Your task to perform on an android device: turn off picture-in-picture Image 0: 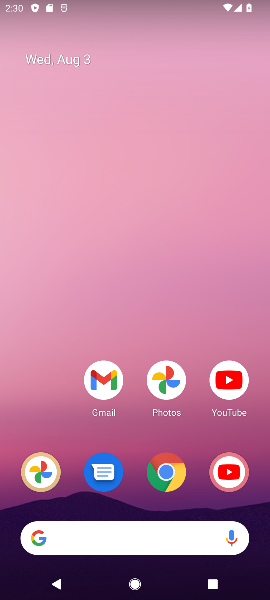
Step 0: drag from (194, 480) to (118, 153)
Your task to perform on an android device: turn off picture-in-picture Image 1: 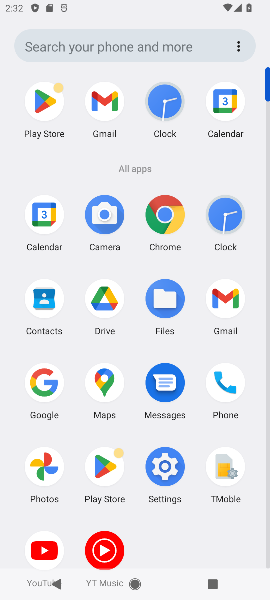
Step 1: click (159, 222)
Your task to perform on an android device: turn off picture-in-picture Image 2: 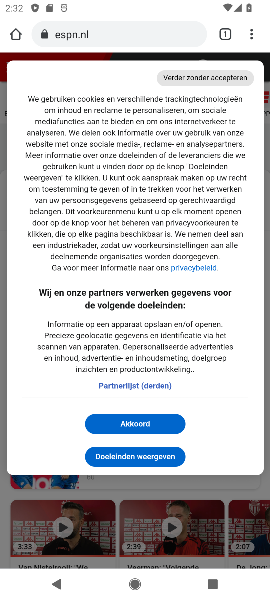
Step 2: task complete